Your task to perform on an android device: turn pop-ups on in chrome Image 0: 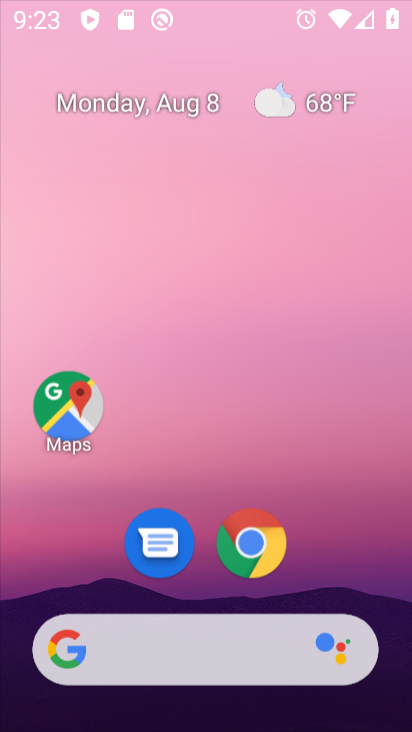
Step 0: press home button
Your task to perform on an android device: turn pop-ups on in chrome Image 1: 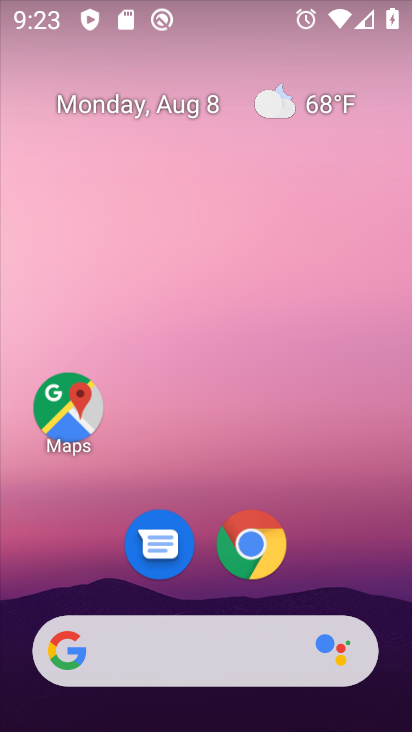
Step 1: click (249, 535)
Your task to perform on an android device: turn pop-ups on in chrome Image 2: 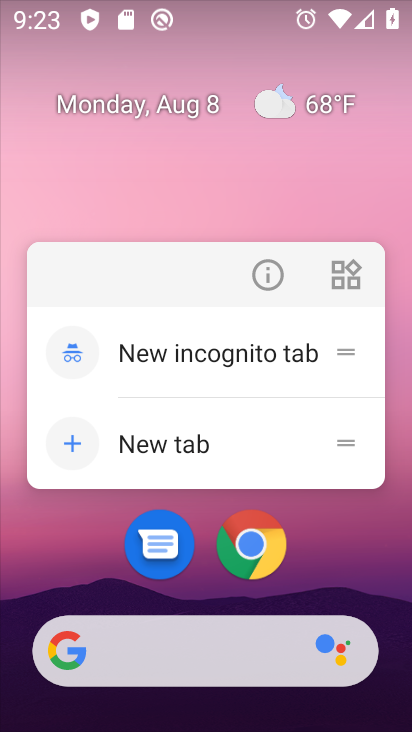
Step 2: click (330, 580)
Your task to perform on an android device: turn pop-ups on in chrome Image 3: 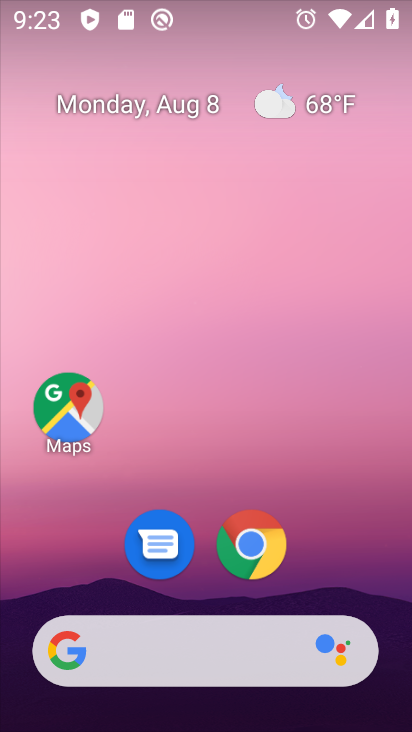
Step 3: drag from (323, 592) to (302, 61)
Your task to perform on an android device: turn pop-ups on in chrome Image 4: 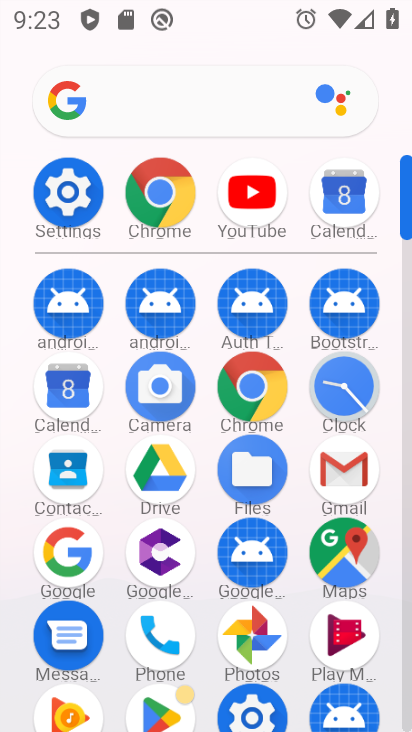
Step 4: click (246, 380)
Your task to perform on an android device: turn pop-ups on in chrome Image 5: 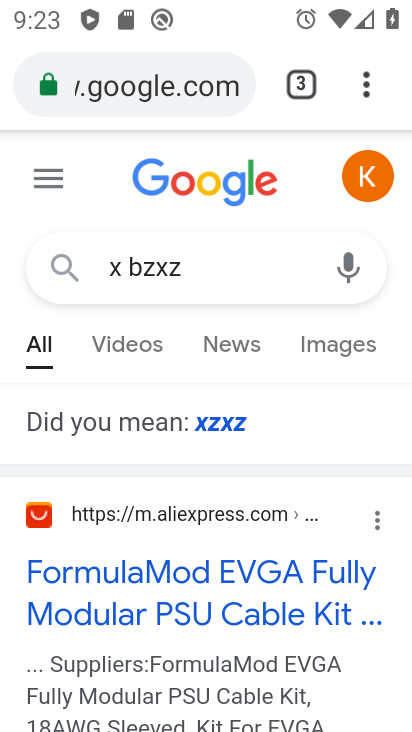
Step 5: click (367, 93)
Your task to perform on an android device: turn pop-ups on in chrome Image 6: 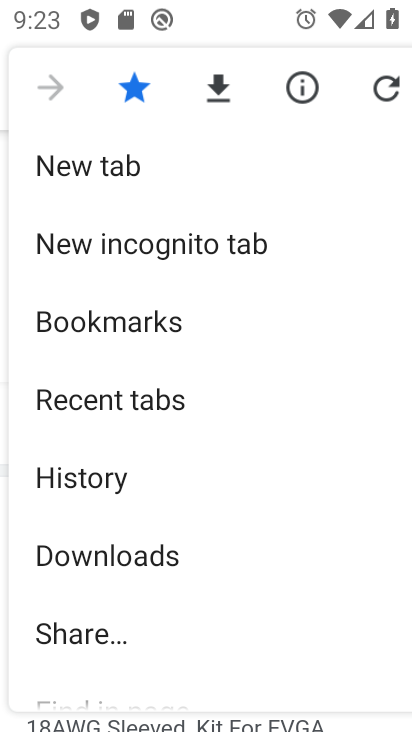
Step 6: drag from (180, 654) to (200, 119)
Your task to perform on an android device: turn pop-ups on in chrome Image 7: 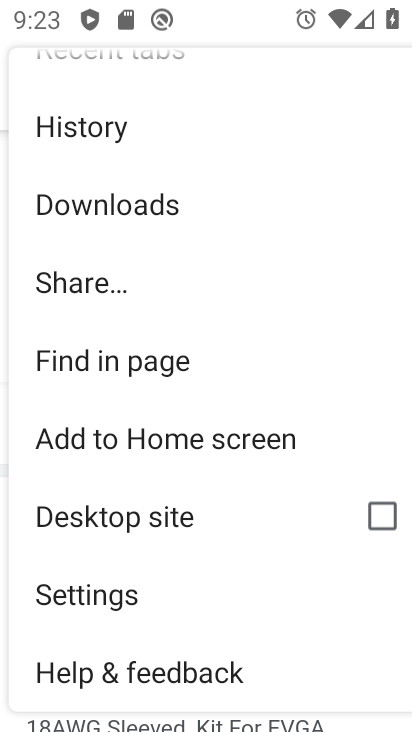
Step 7: click (154, 588)
Your task to perform on an android device: turn pop-ups on in chrome Image 8: 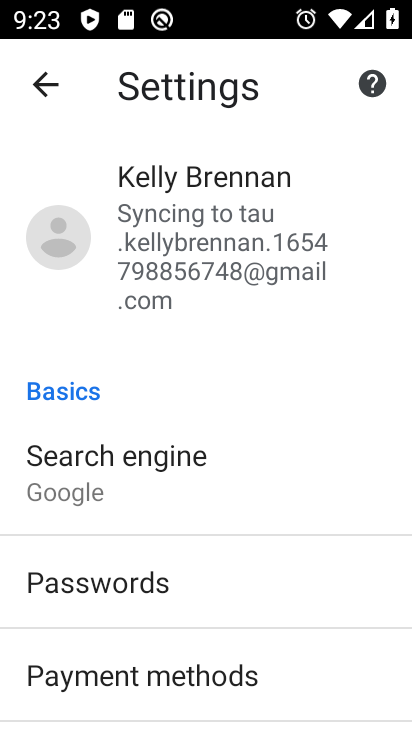
Step 8: drag from (284, 687) to (294, 120)
Your task to perform on an android device: turn pop-ups on in chrome Image 9: 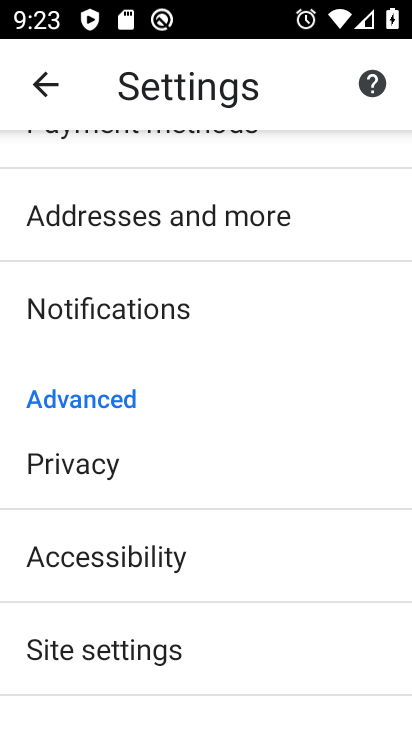
Step 9: click (215, 648)
Your task to perform on an android device: turn pop-ups on in chrome Image 10: 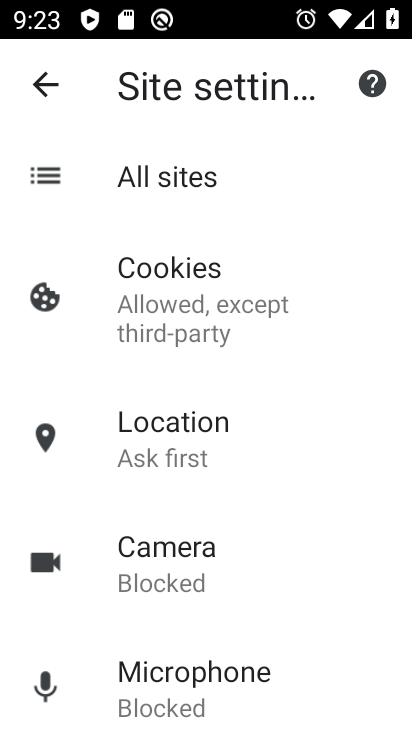
Step 10: drag from (296, 688) to (287, 170)
Your task to perform on an android device: turn pop-ups on in chrome Image 11: 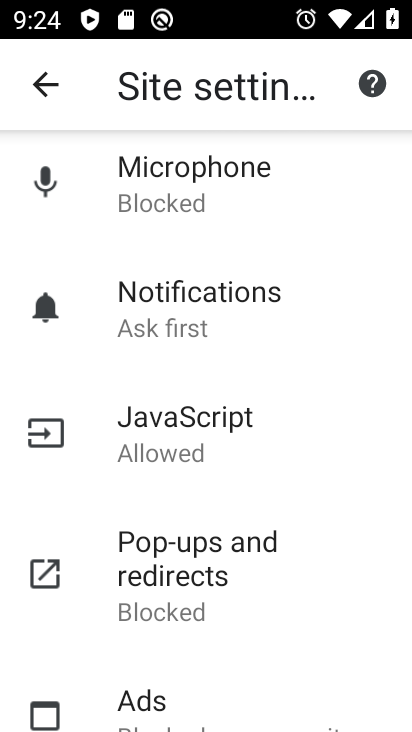
Step 11: click (263, 574)
Your task to perform on an android device: turn pop-ups on in chrome Image 12: 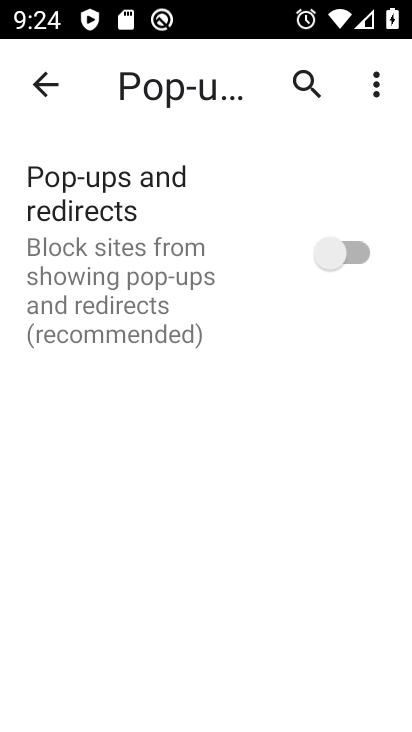
Step 12: click (349, 242)
Your task to perform on an android device: turn pop-ups on in chrome Image 13: 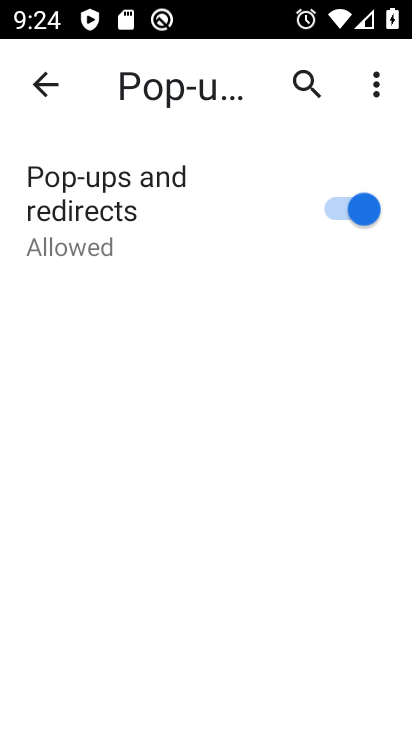
Step 13: task complete